Your task to perform on an android device: turn on wifi Image 0: 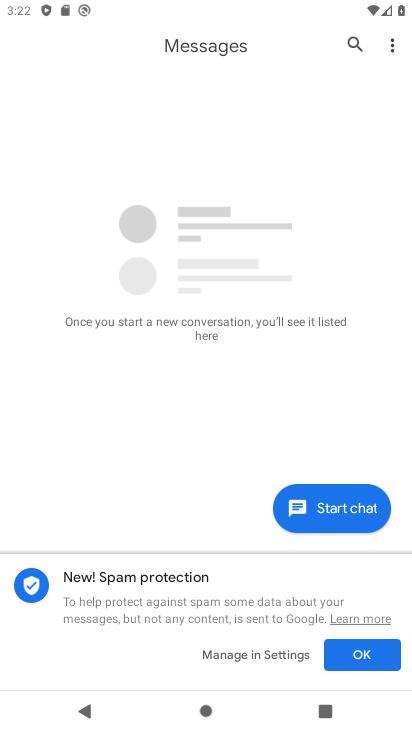
Step 0: press home button
Your task to perform on an android device: turn on wifi Image 1: 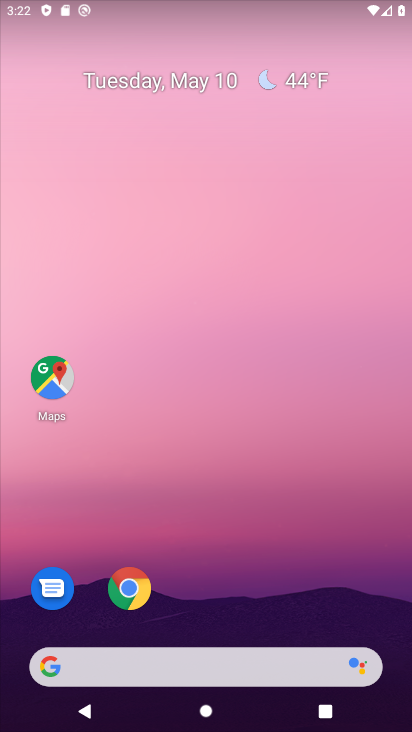
Step 1: task complete